Your task to perform on an android device: Is it going to rain tomorrow? Image 0: 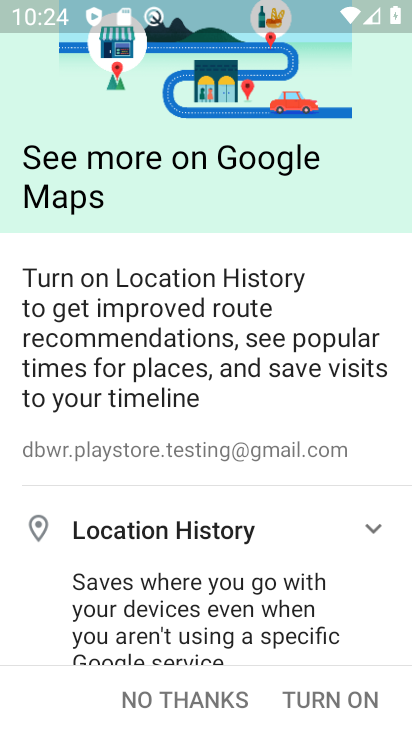
Step 0: press home button
Your task to perform on an android device: Is it going to rain tomorrow? Image 1: 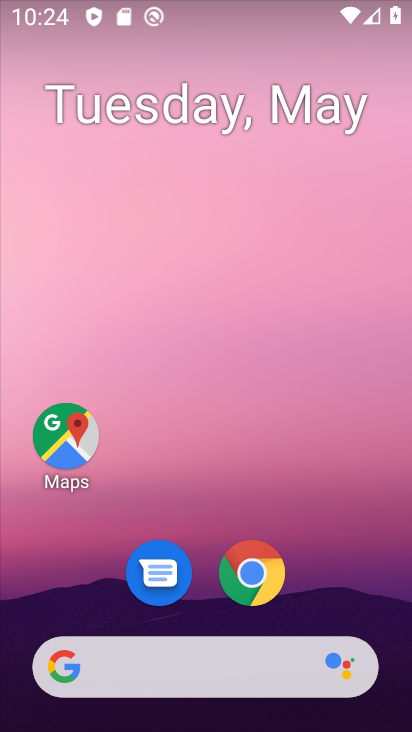
Step 1: drag from (331, 588) to (357, 98)
Your task to perform on an android device: Is it going to rain tomorrow? Image 2: 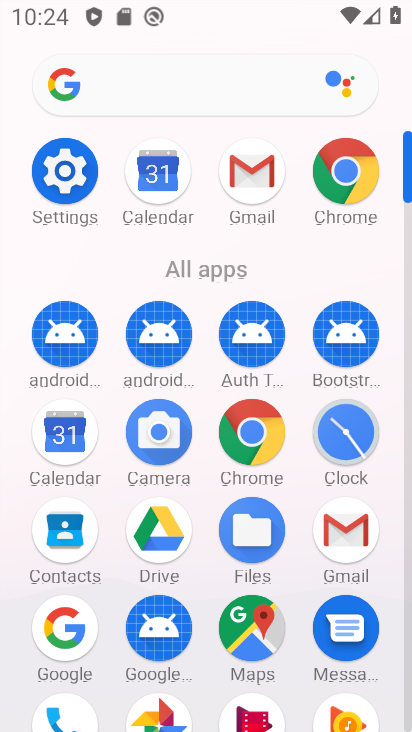
Step 2: click (258, 446)
Your task to perform on an android device: Is it going to rain tomorrow? Image 3: 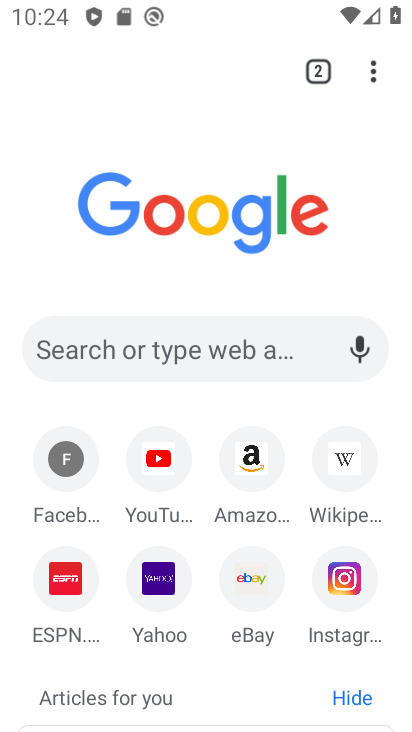
Step 3: click (176, 346)
Your task to perform on an android device: Is it going to rain tomorrow? Image 4: 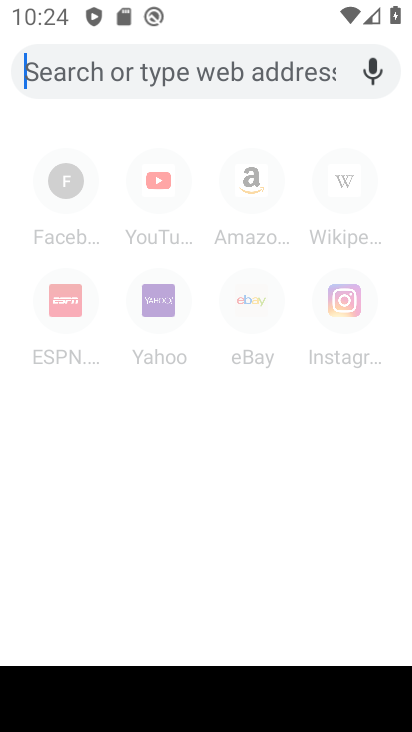
Step 4: type "Is it going to rain tomorrow?"
Your task to perform on an android device: Is it going to rain tomorrow? Image 5: 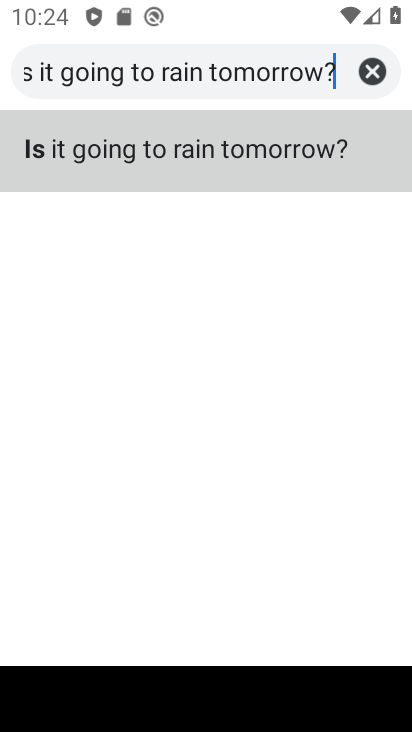
Step 5: click (317, 154)
Your task to perform on an android device: Is it going to rain tomorrow? Image 6: 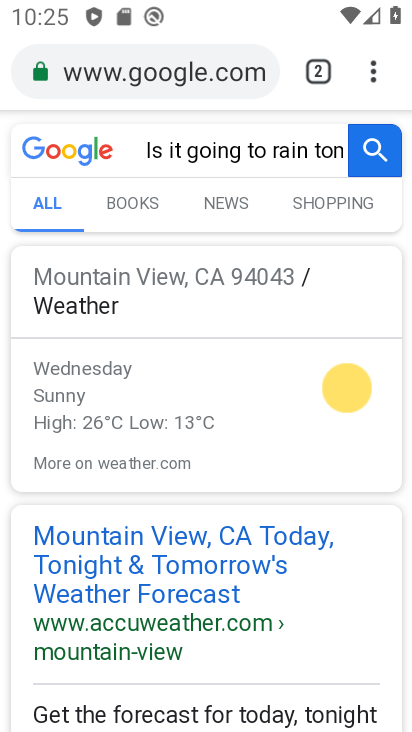
Step 6: task complete